Your task to perform on an android device: Open Google Chrome and open the bookmarks view Image 0: 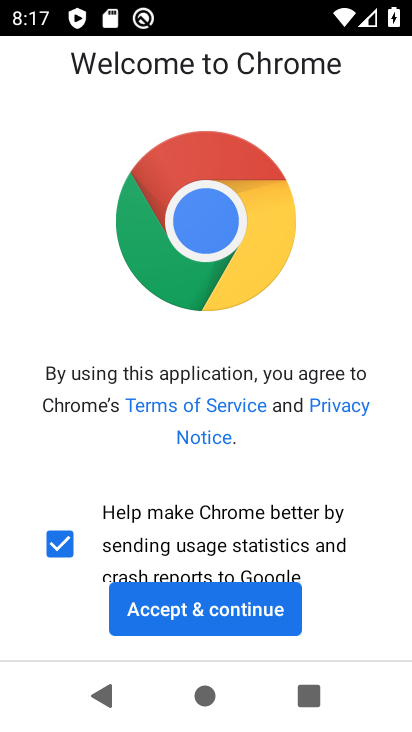
Step 0: click (221, 601)
Your task to perform on an android device: Open Google Chrome and open the bookmarks view Image 1: 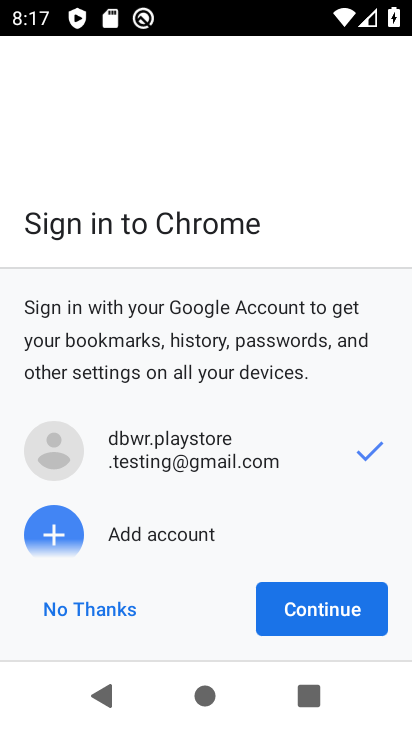
Step 1: click (291, 610)
Your task to perform on an android device: Open Google Chrome and open the bookmarks view Image 2: 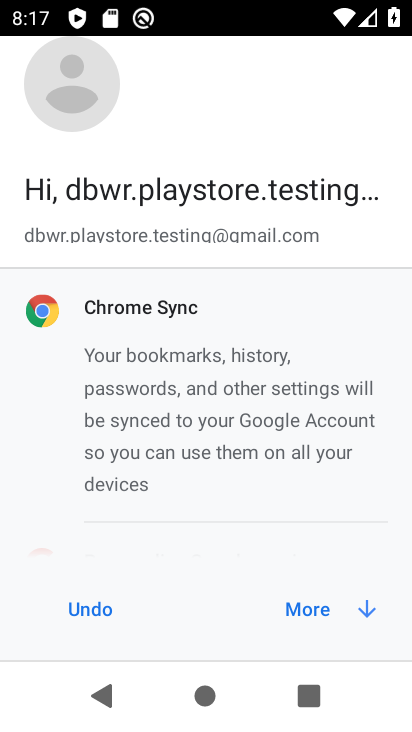
Step 2: click (310, 613)
Your task to perform on an android device: Open Google Chrome and open the bookmarks view Image 3: 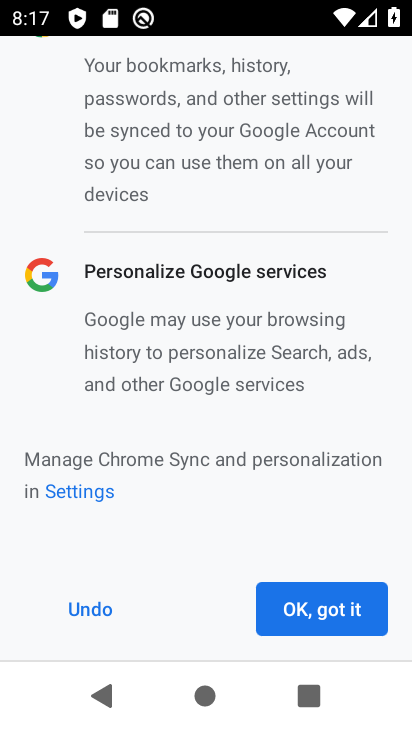
Step 3: click (310, 613)
Your task to perform on an android device: Open Google Chrome and open the bookmarks view Image 4: 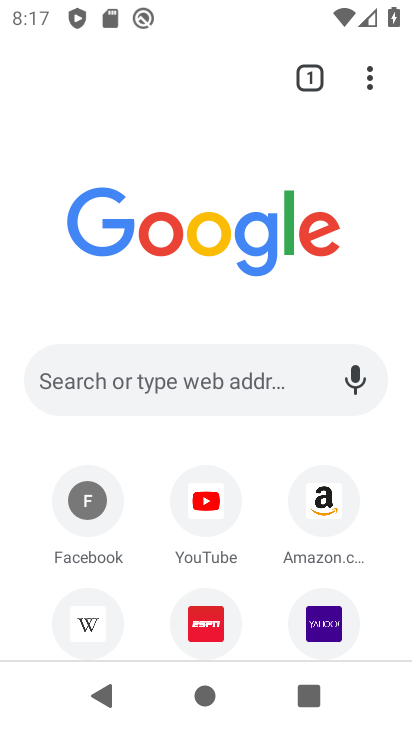
Step 4: task complete